Your task to perform on an android device: open chrome privacy settings Image 0: 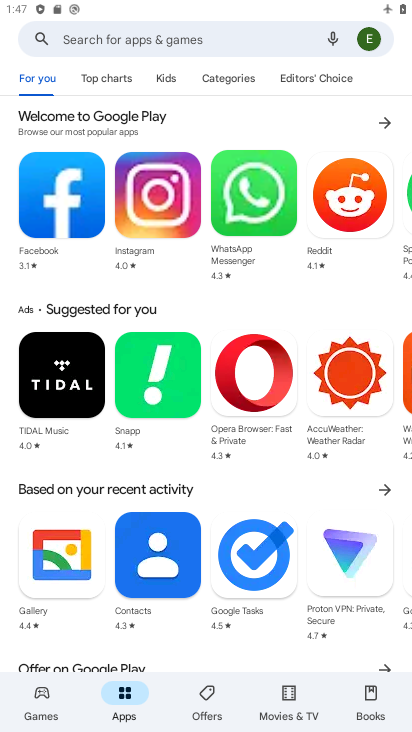
Step 0: task complete